Your task to perform on an android device: Is it going to rain today? Image 0: 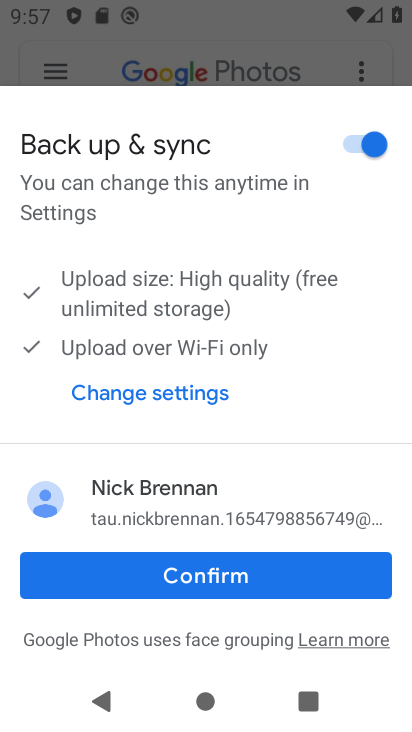
Step 0: press home button
Your task to perform on an android device: Is it going to rain today? Image 1: 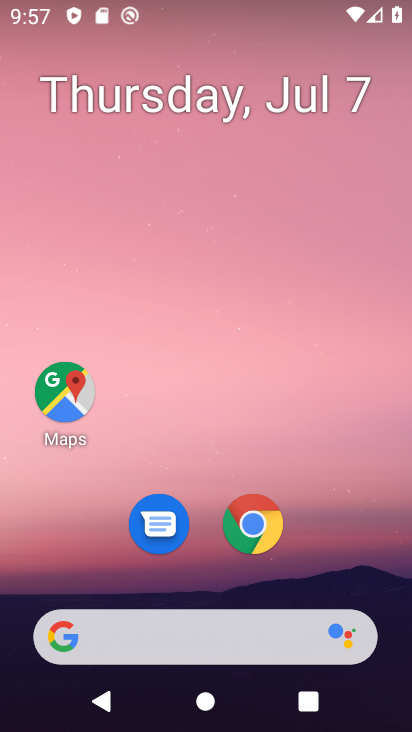
Step 1: click (218, 650)
Your task to perform on an android device: Is it going to rain today? Image 2: 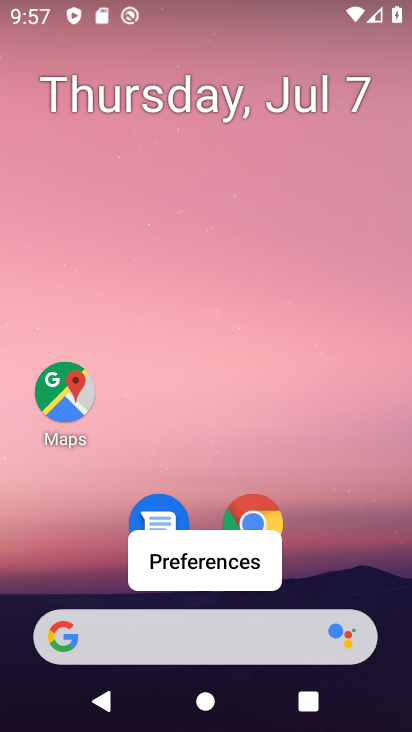
Step 2: click (165, 647)
Your task to perform on an android device: Is it going to rain today? Image 3: 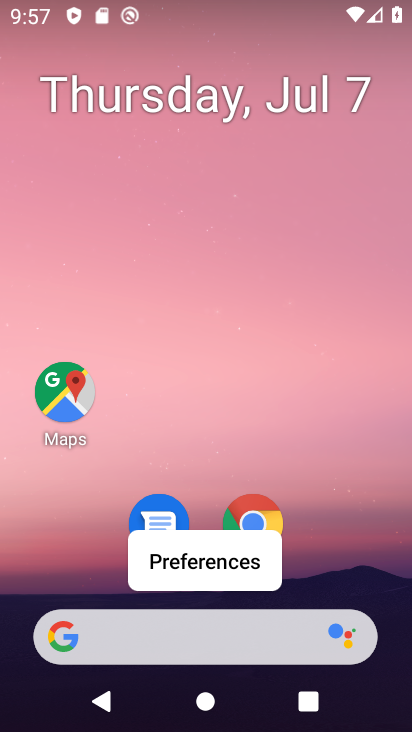
Step 3: click (213, 638)
Your task to perform on an android device: Is it going to rain today? Image 4: 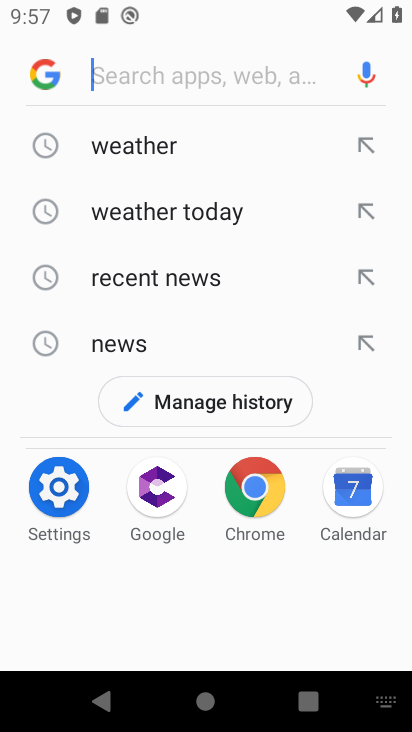
Step 4: click (136, 147)
Your task to perform on an android device: Is it going to rain today? Image 5: 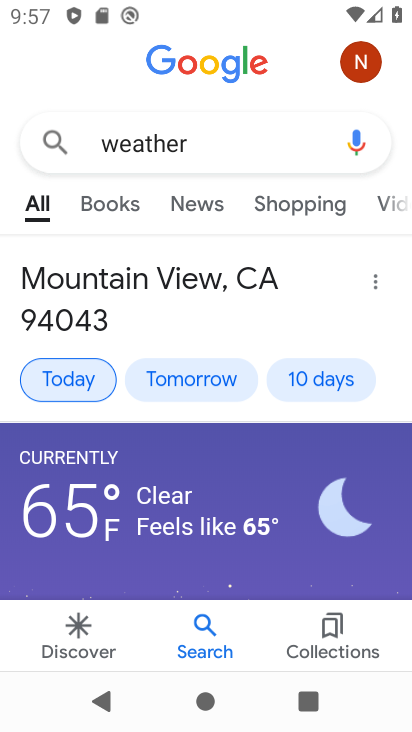
Step 5: click (85, 385)
Your task to perform on an android device: Is it going to rain today? Image 6: 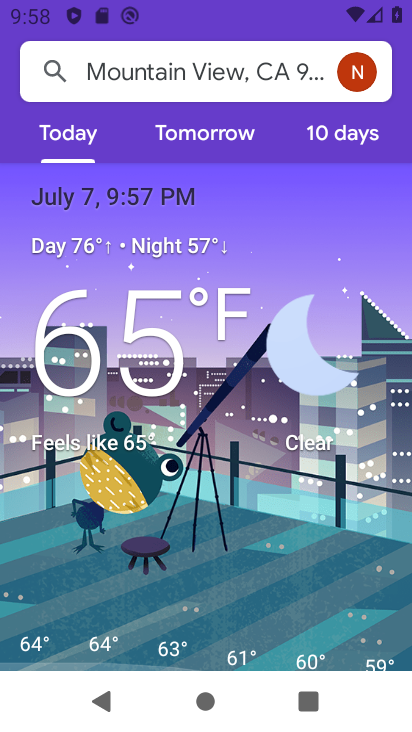
Step 6: task complete